Your task to perform on an android device: toggle notifications settings in the gmail app Image 0: 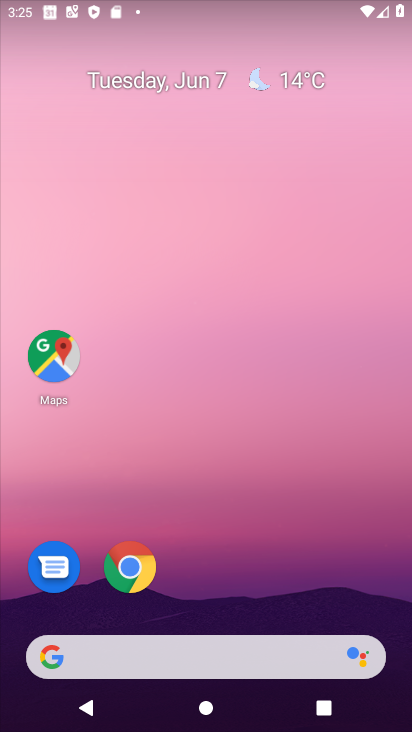
Step 0: drag from (230, 568) to (219, 172)
Your task to perform on an android device: toggle notifications settings in the gmail app Image 1: 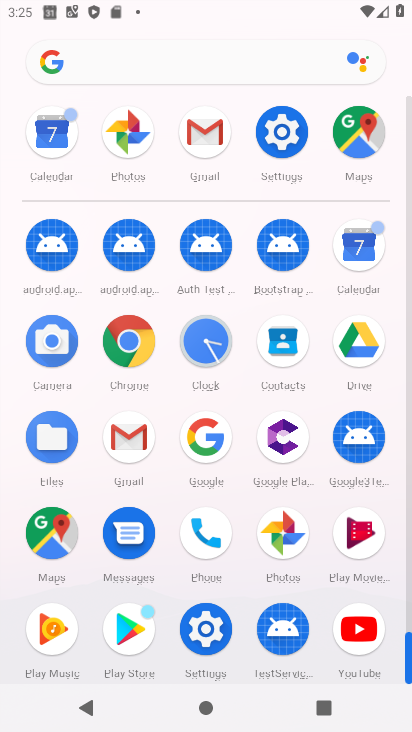
Step 1: click (184, 153)
Your task to perform on an android device: toggle notifications settings in the gmail app Image 2: 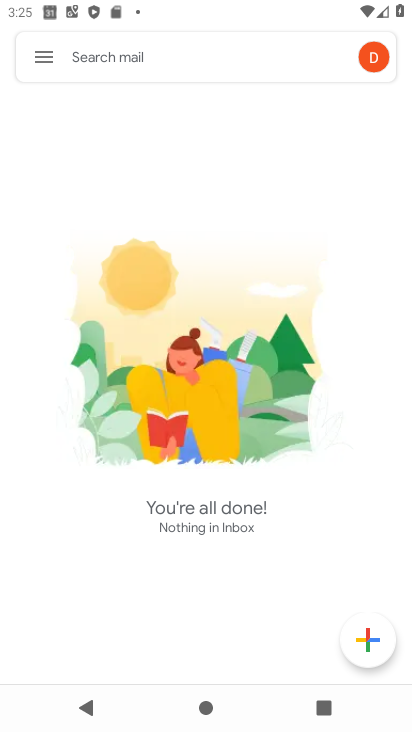
Step 2: click (39, 46)
Your task to perform on an android device: toggle notifications settings in the gmail app Image 3: 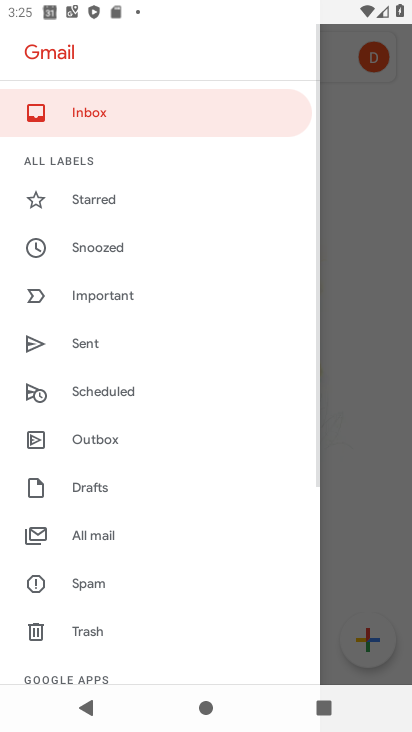
Step 3: drag from (118, 622) to (147, 327)
Your task to perform on an android device: toggle notifications settings in the gmail app Image 4: 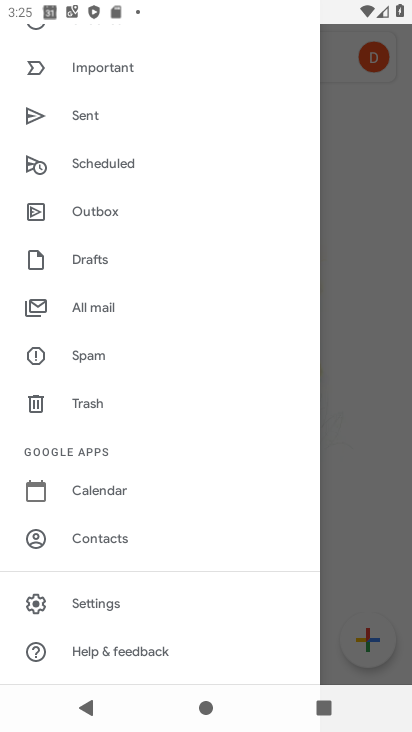
Step 4: click (103, 597)
Your task to perform on an android device: toggle notifications settings in the gmail app Image 5: 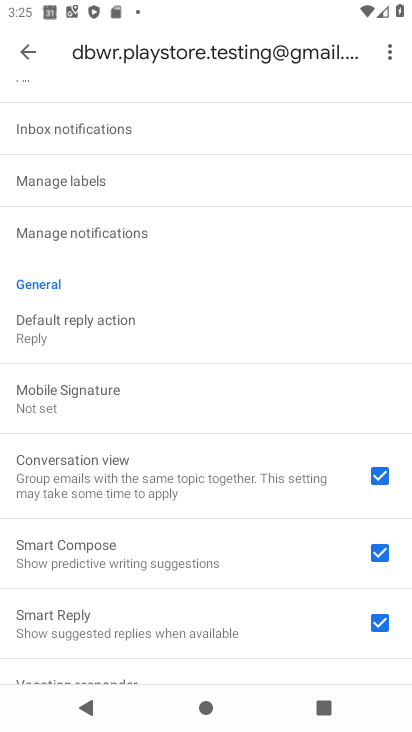
Step 5: click (103, 239)
Your task to perform on an android device: toggle notifications settings in the gmail app Image 6: 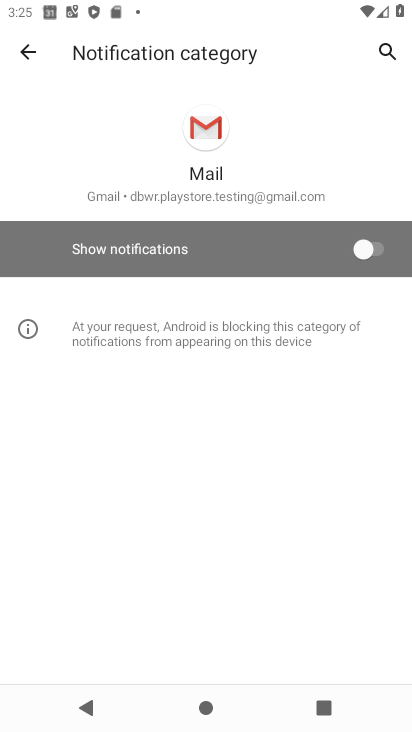
Step 6: click (374, 249)
Your task to perform on an android device: toggle notifications settings in the gmail app Image 7: 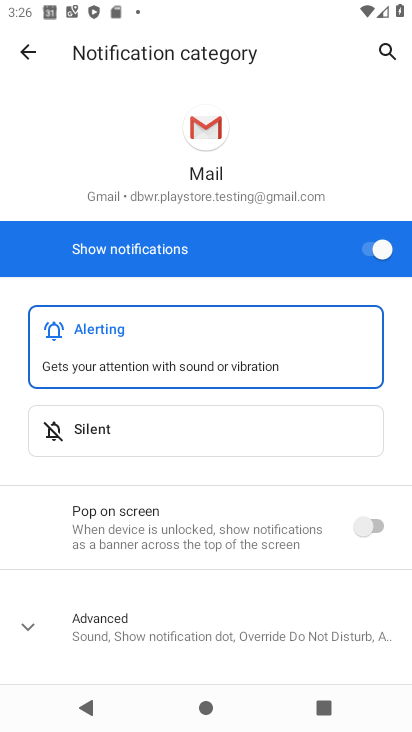
Step 7: task complete